Your task to perform on an android device: Open Chrome and go to settings Image 0: 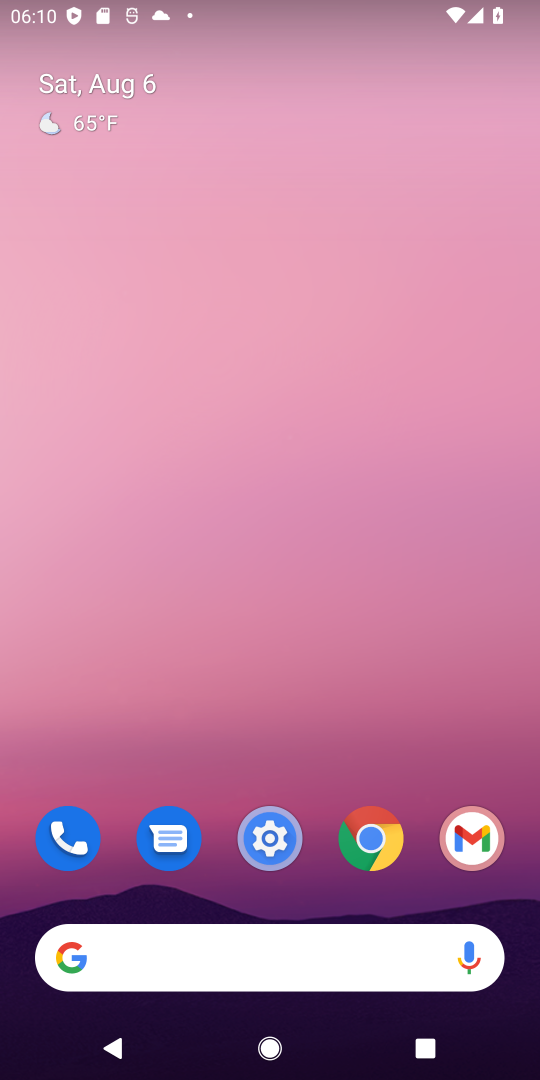
Step 0: drag from (358, 758) to (310, 115)
Your task to perform on an android device: Open Chrome and go to settings Image 1: 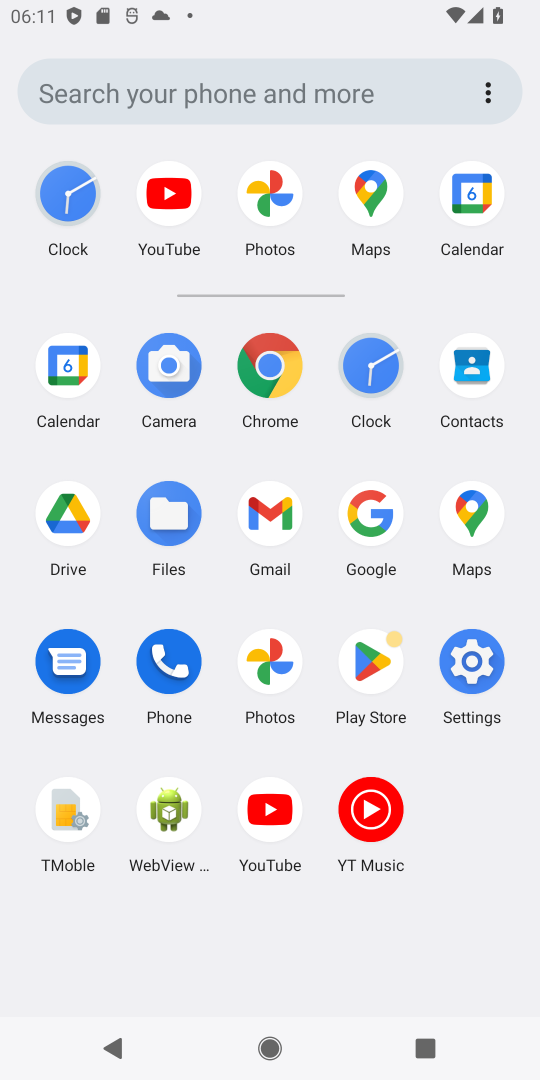
Step 1: click (251, 385)
Your task to perform on an android device: Open Chrome and go to settings Image 2: 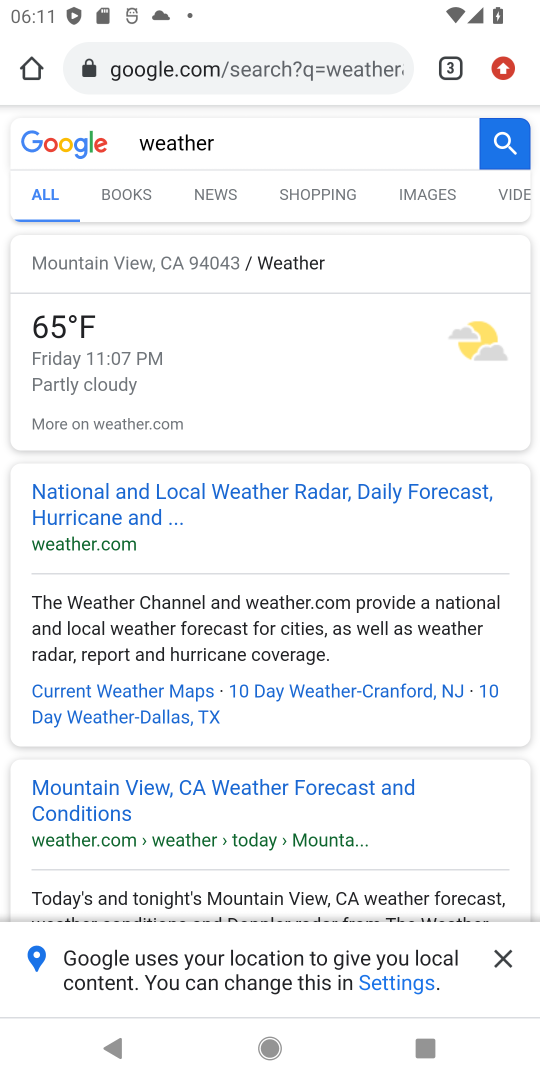
Step 2: click (491, 68)
Your task to perform on an android device: Open Chrome and go to settings Image 3: 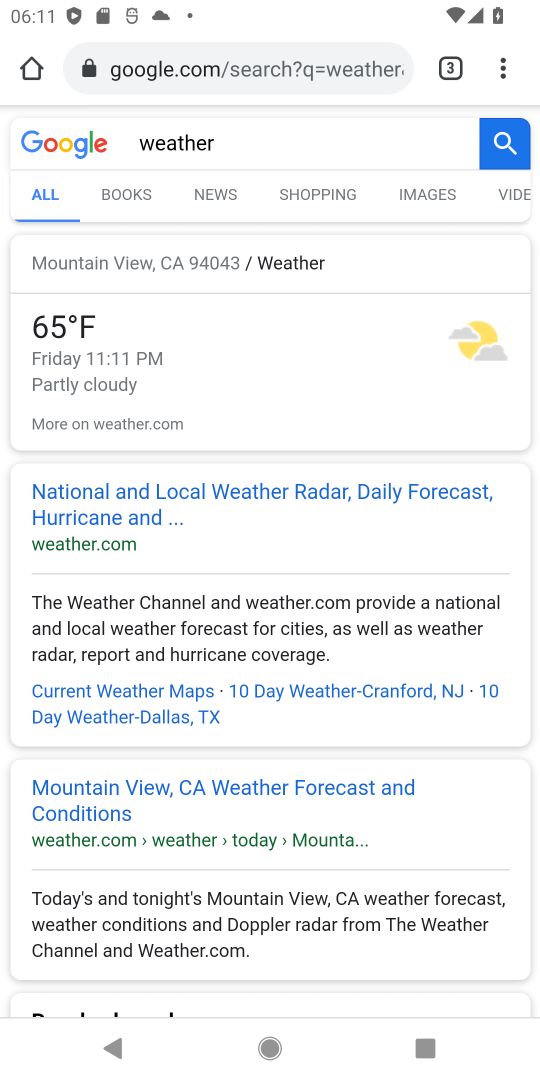
Step 3: click (507, 87)
Your task to perform on an android device: Open Chrome and go to settings Image 4: 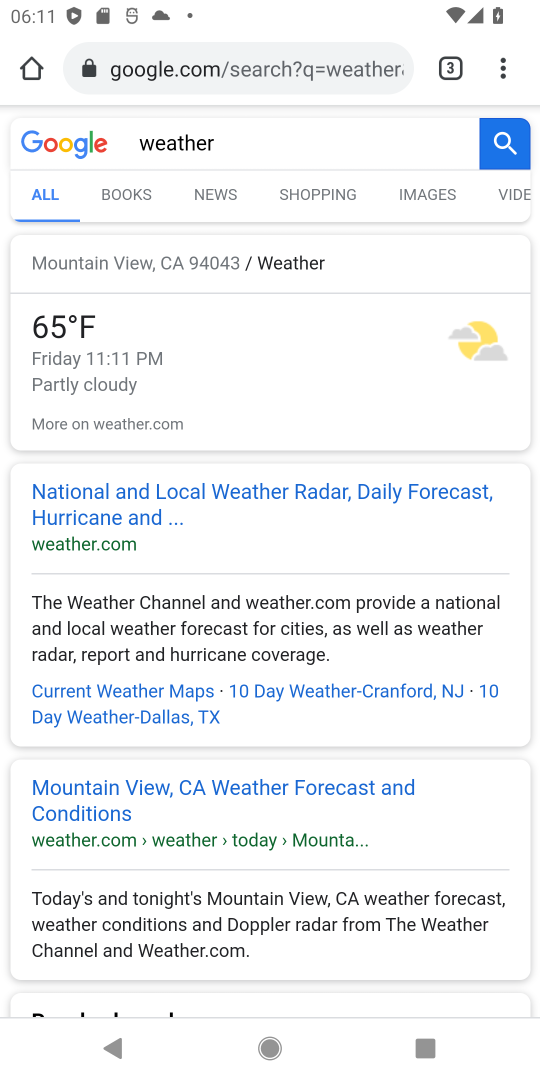
Step 4: click (506, 61)
Your task to perform on an android device: Open Chrome and go to settings Image 5: 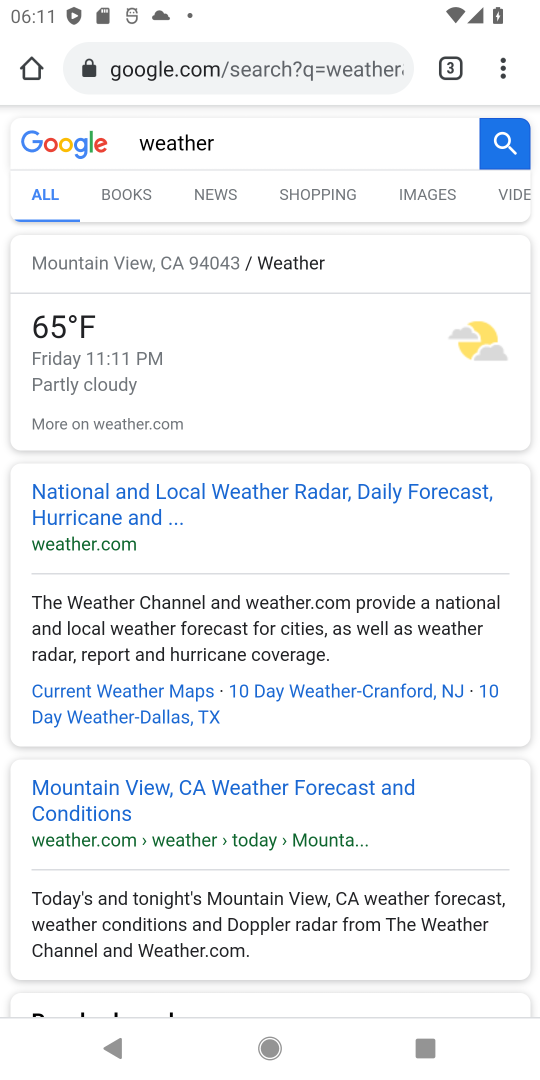
Step 5: click (512, 72)
Your task to perform on an android device: Open Chrome and go to settings Image 6: 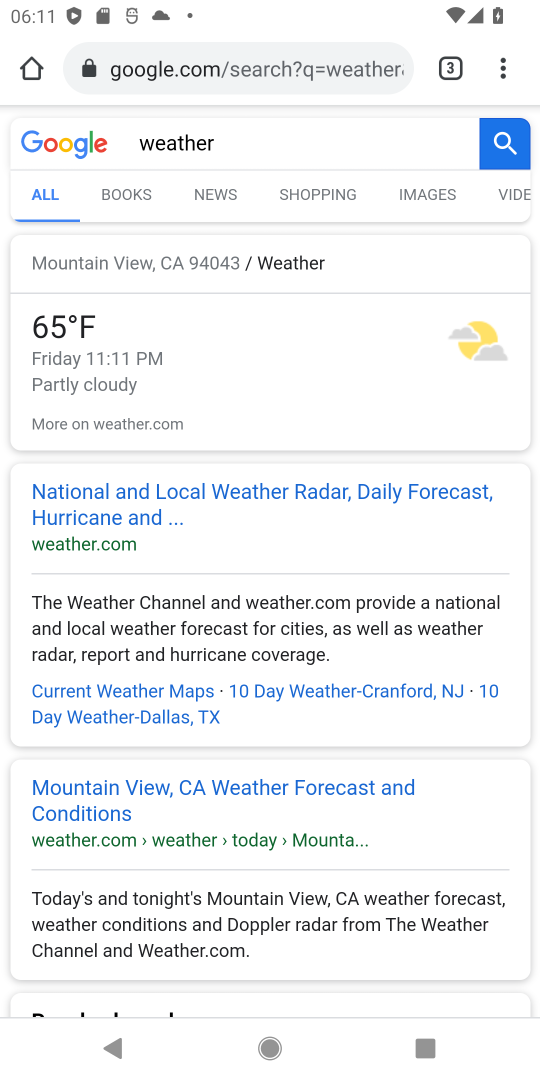
Step 6: click (505, 70)
Your task to perform on an android device: Open Chrome and go to settings Image 7: 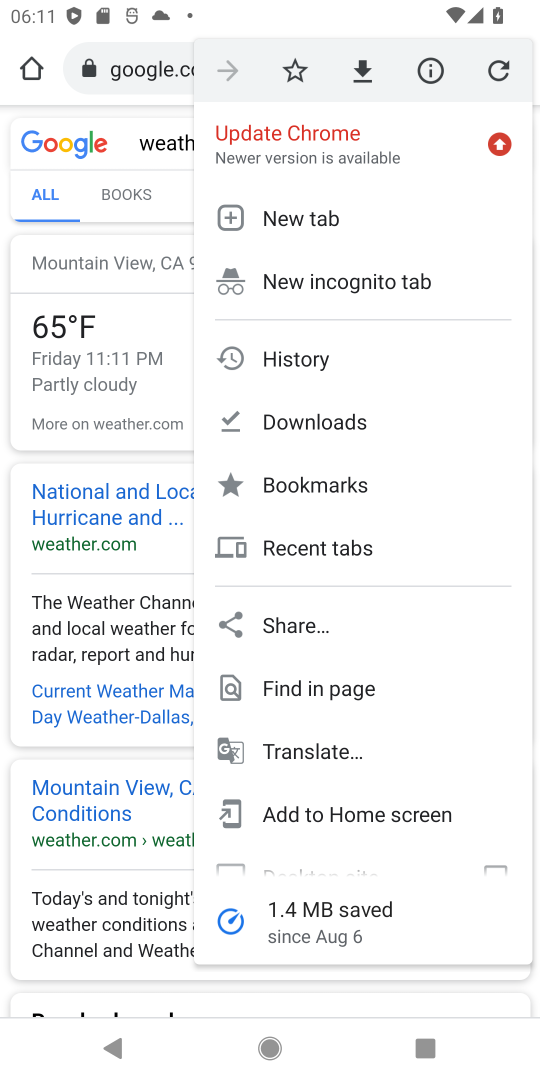
Step 7: drag from (397, 769) to (310, 473)
Your task to perform on an android device: Open Chrome and go to settings Image 8: 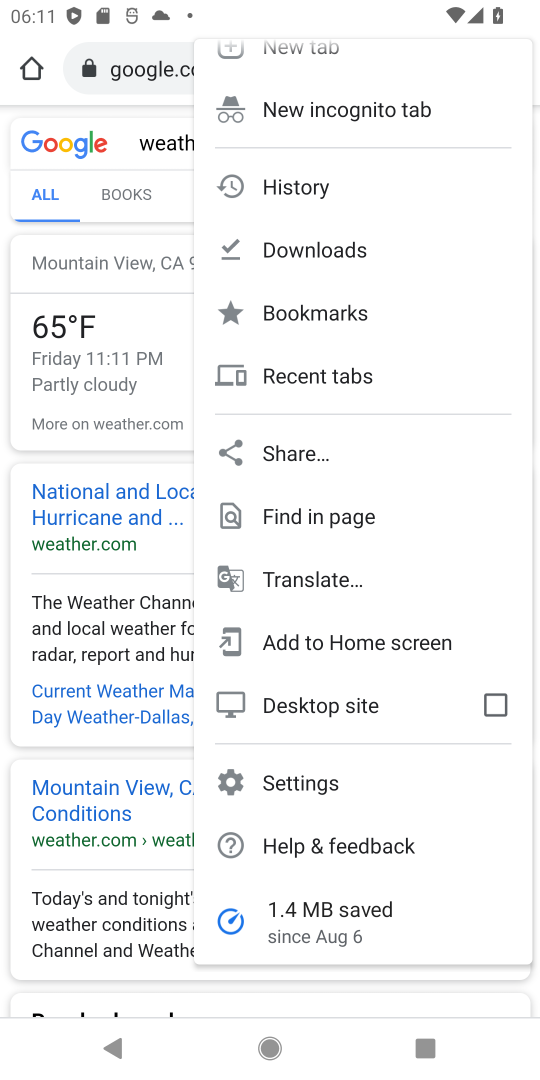
Step 8: click (317, 773)
Your task to perform on an android device: Open Chrome and go to settings Image 9: 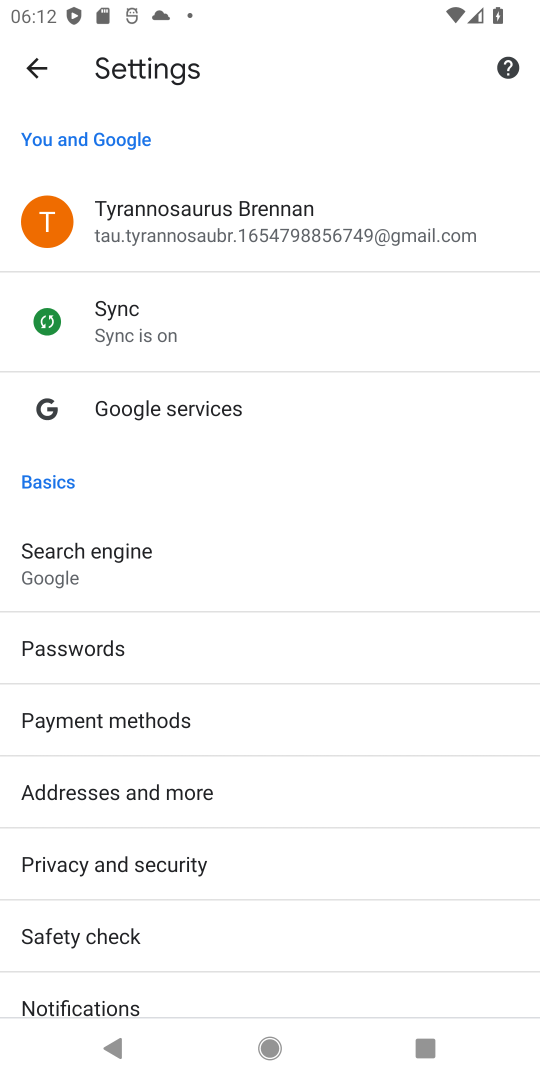
Step 9: task complete